Your task to perform on an android device: turn notification dots off Image 0: 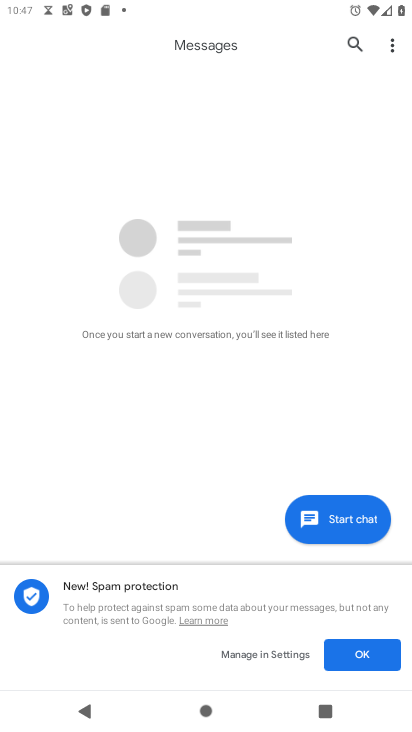
Step 0: press back button
Your task to perform on an android device: turn notification dots off Image 1: 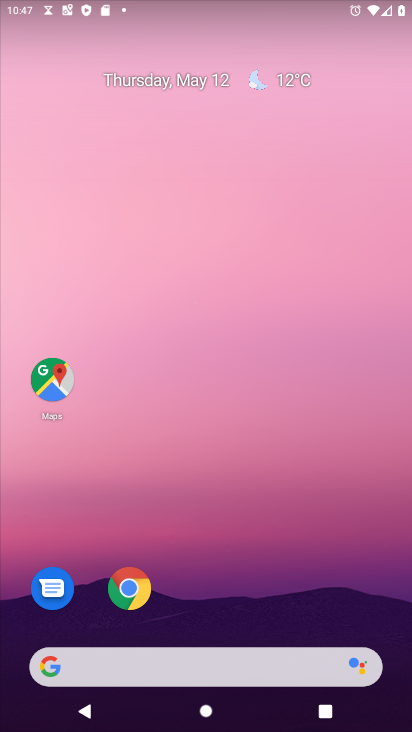
Step 1: drag from (230, 582) to (145, 39)
Your task to perform on an android device: turn notification dots off Image 2: 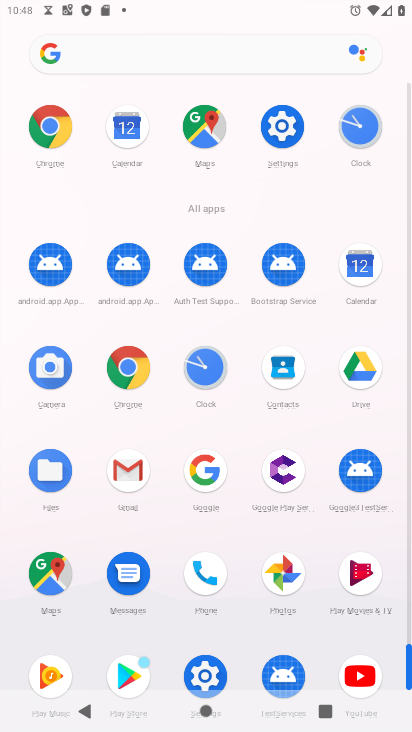
Step 2: drag from (172, 510) to (155, 363)
Your task to perform on an android device: turn notification dots off Image 3: 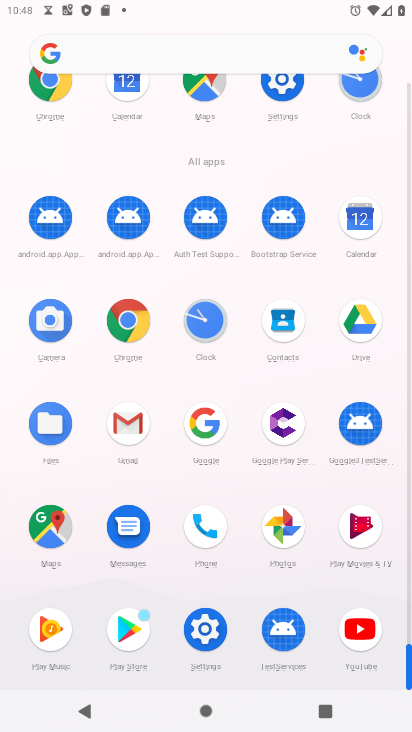
Step 3: drag from (312, 176) to (336, 241)
Your task to perform on an android device: turn notification dots off Image 4: 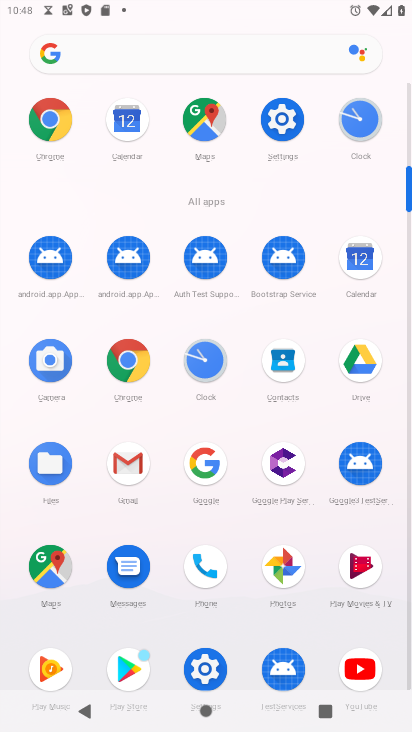
Step 4: click (282, 117)
Your task to perform on an android device: turn notification dots off Image 5: 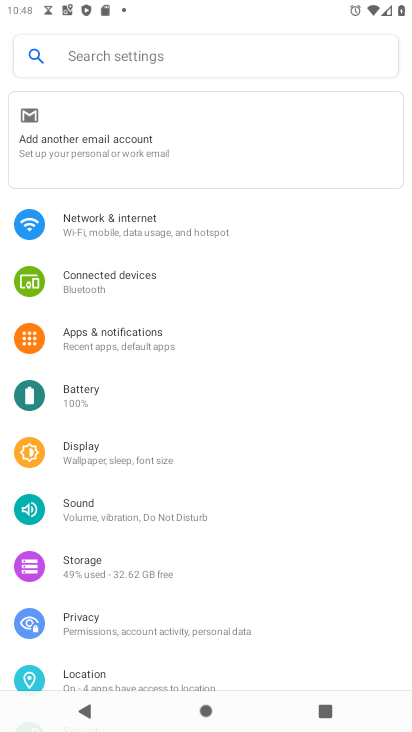
Step 5: click (120, 413)
Your task to perform on an android device: turn notification dots off Image 6: 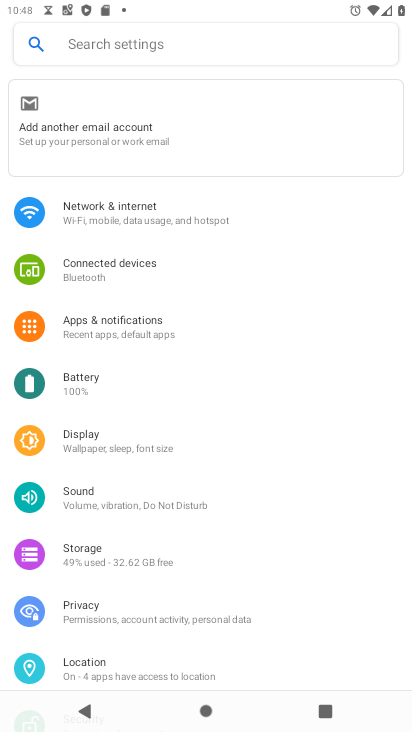
Step 6: click (133, 318)
Your task to perform on an android device: turn notification dots off Image 7: 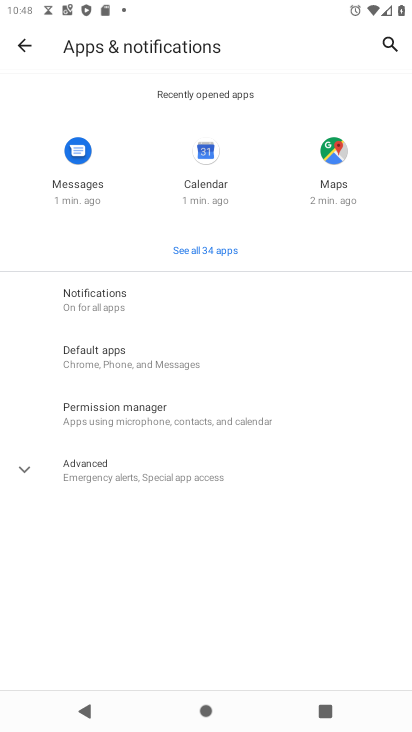
Step 7: click (101, 298)
Your task to perform on an android device: turn notification dots off Image 8: 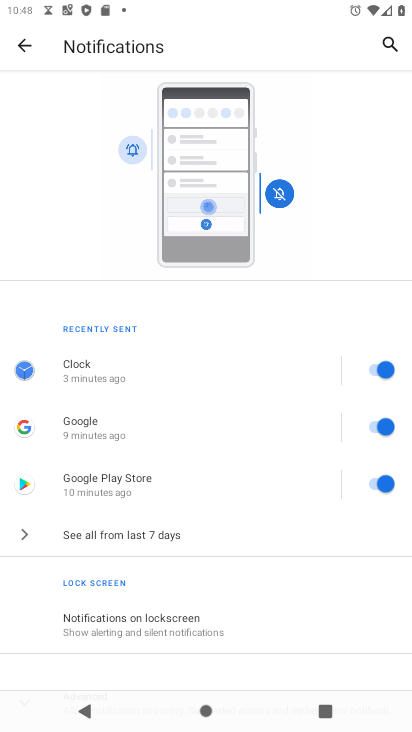
Step 8: drag from (196, 586) to (230, 472)
Your task to perform on an android device: turn notification dots off Image 9: 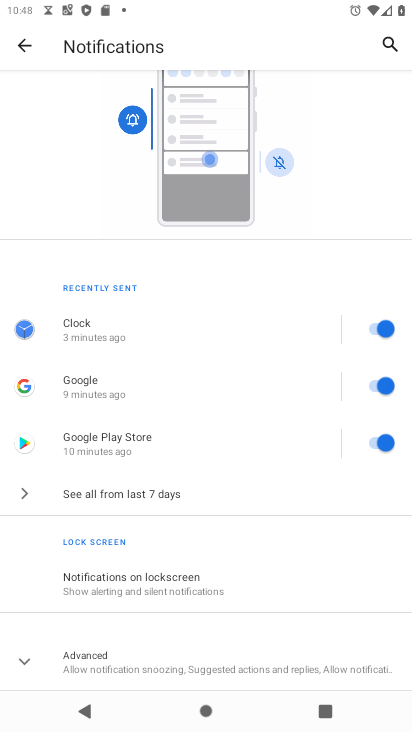
Step 9: click (137, 671)
Your task to perform on an android device: turn notification dots off Image 10: 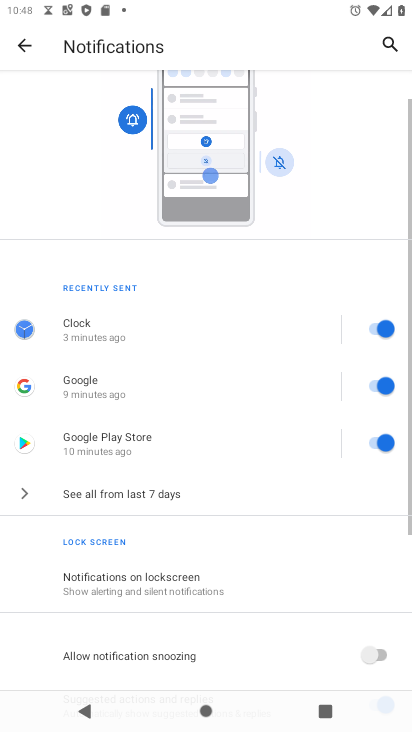
Step 10: drag from (200, 615) to (266, 342)
Your task to perform on an android device: turn notification dots off Image 11: 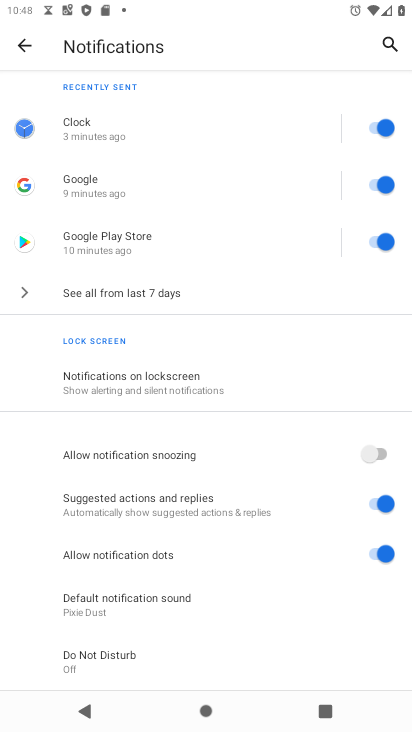
Step 11: click (393, 548)
Your task to perform on an android device: turn notification dots off Image 12: 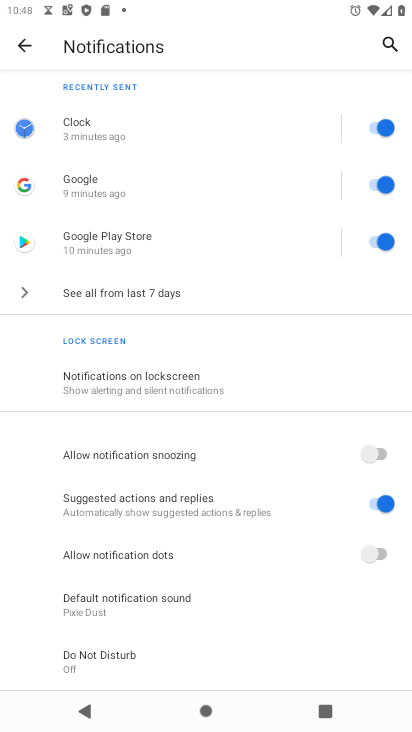
Step 12: task complete